Your task to perform on an android device: turn on location history Image 0: 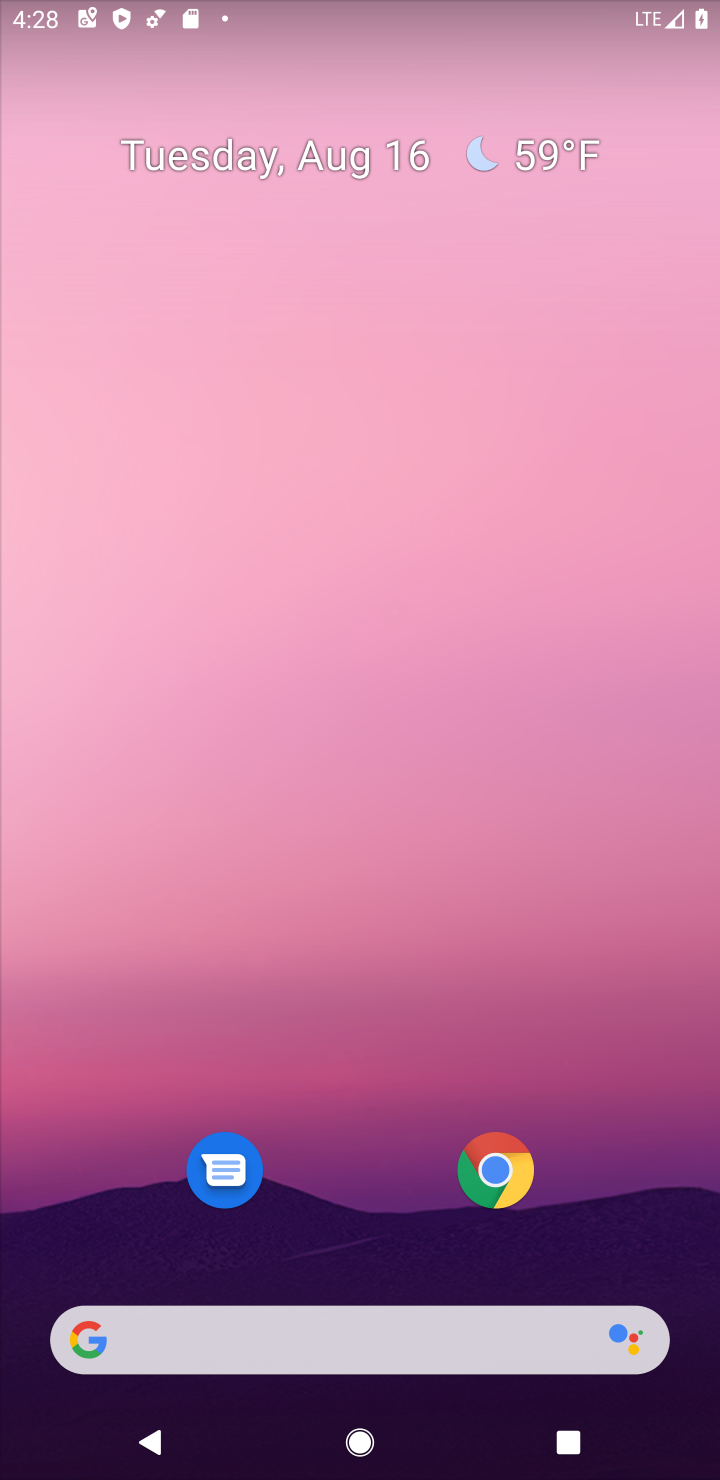
Step 0: drag from (408, 1288) to (372, 119)
Your task to perform on an android device: turn on location history Image 1: 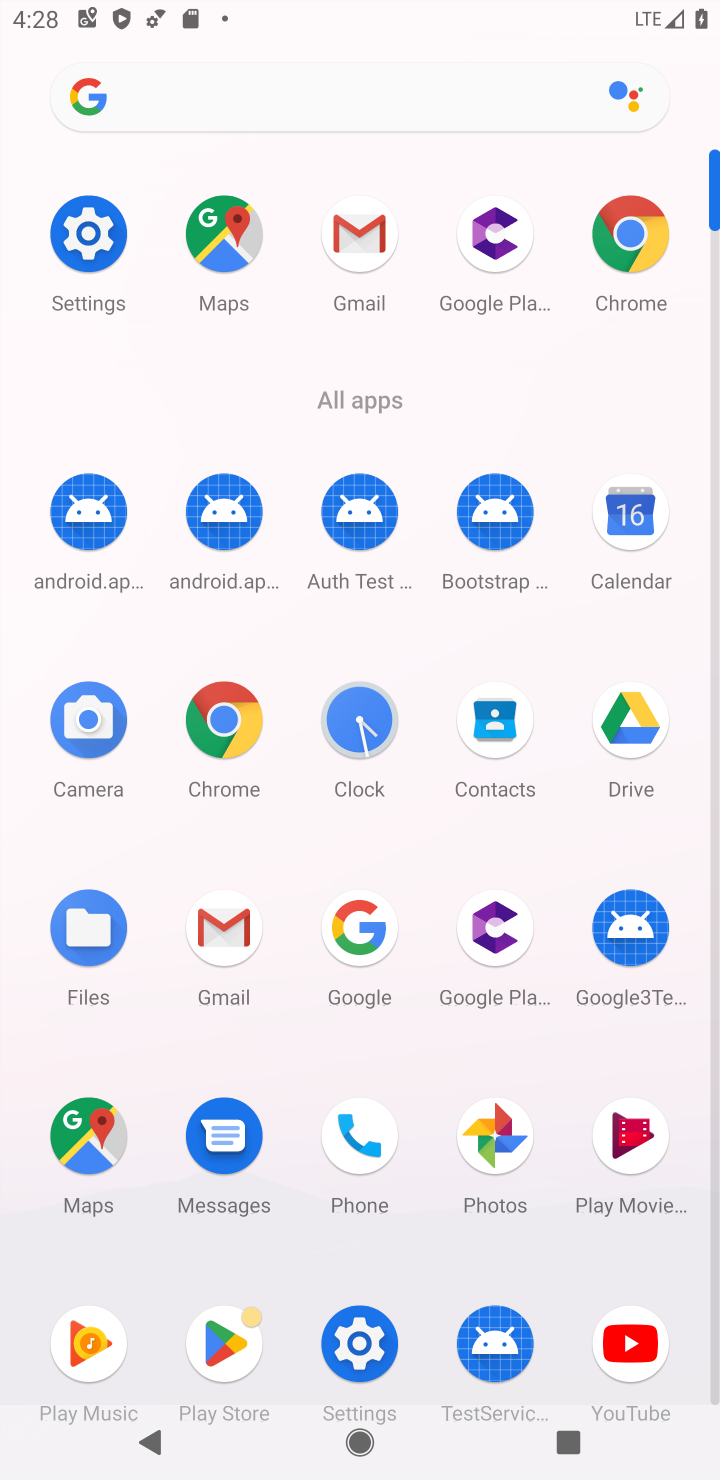
Step 1: click (75, 267)
Your task to perform on an android device: turn on location history Image 2: 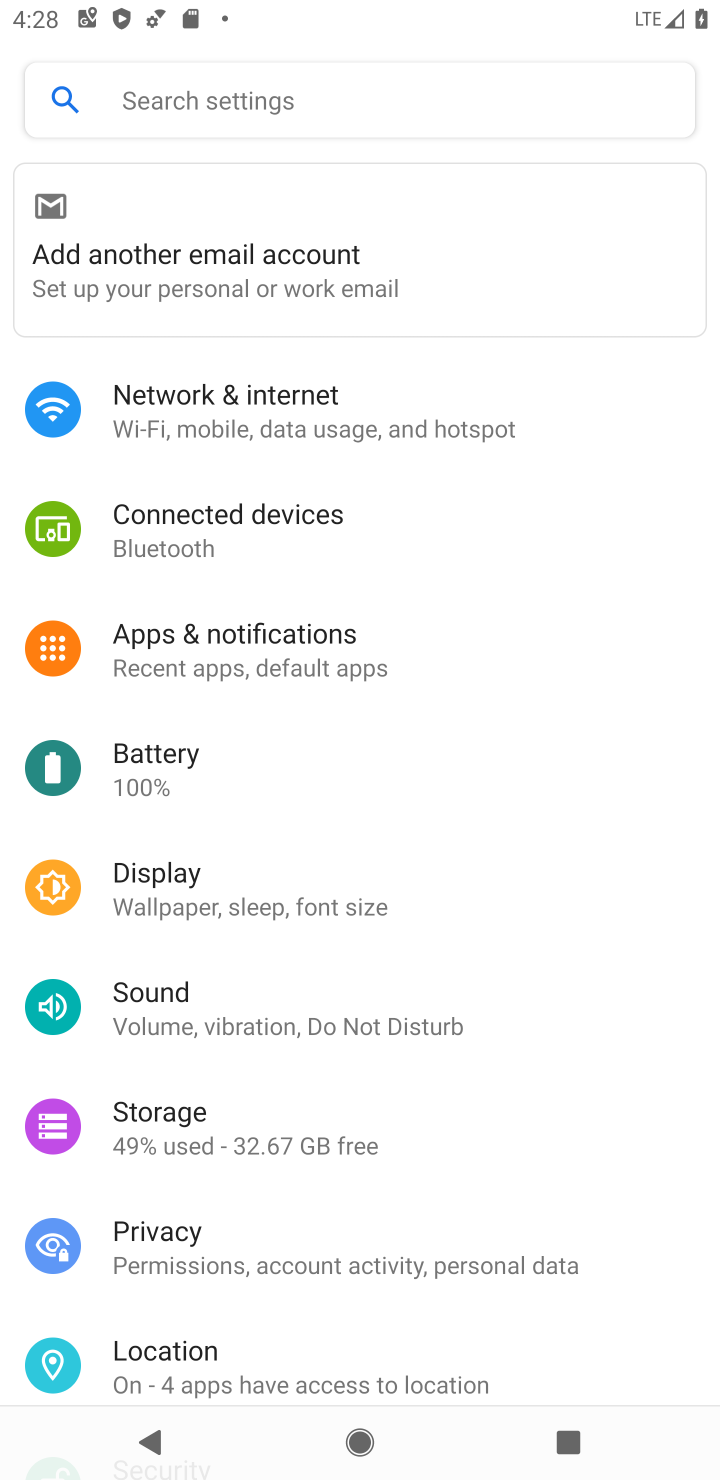
Step 2: click (175, 1359)
Your task to perform on an android device: turn on location history Image 3: 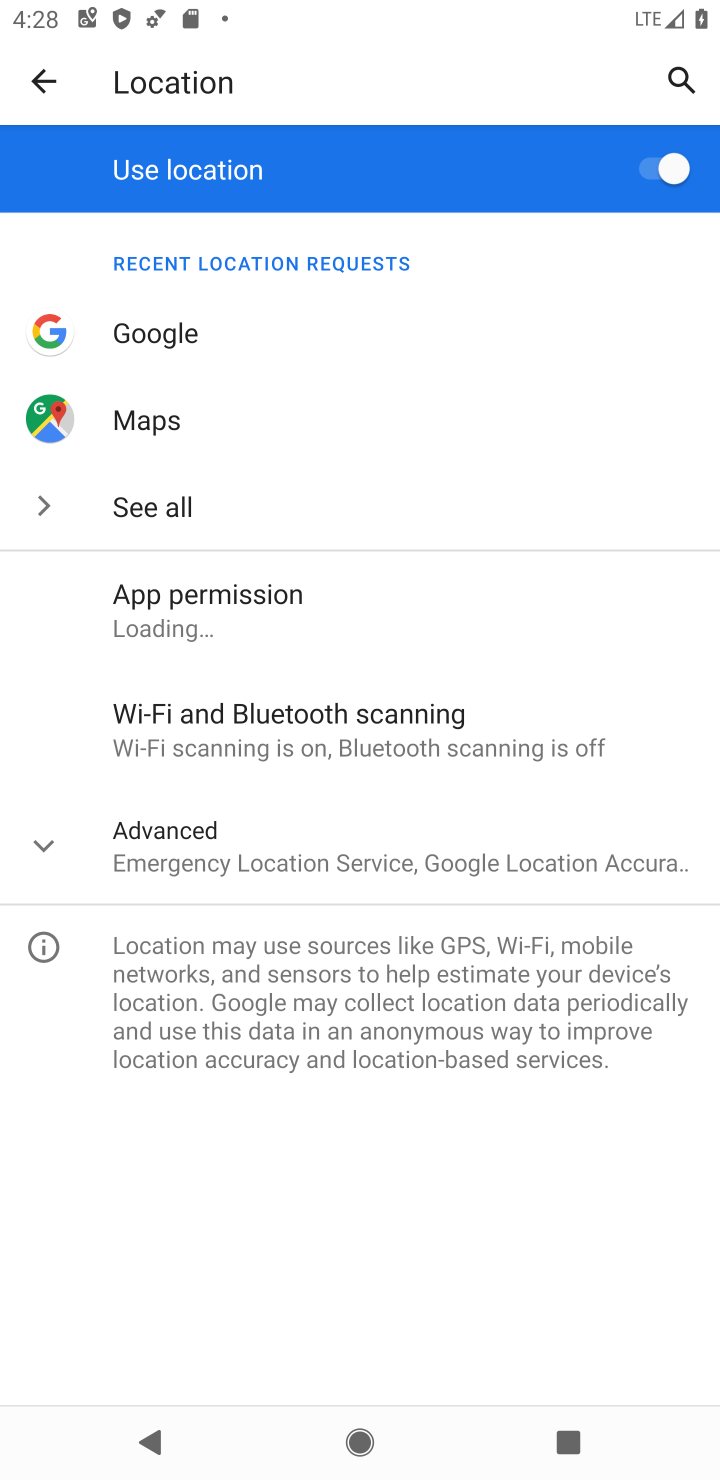
Step 3: click (176, 883)
Your task to perform on an android device: turn on location history Image 4: 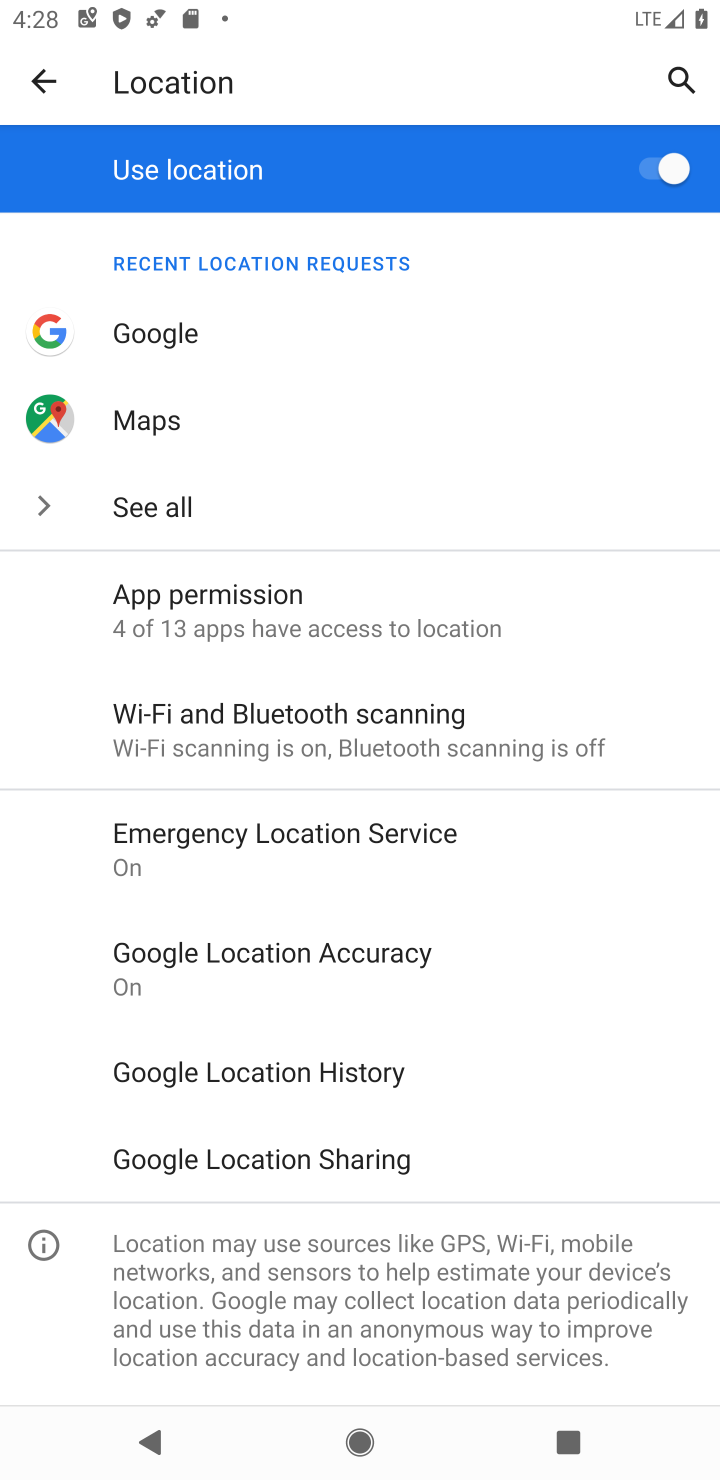
Step 4: click (267, 1099)
Your task to perform on an android device: turn on location history Image 5: 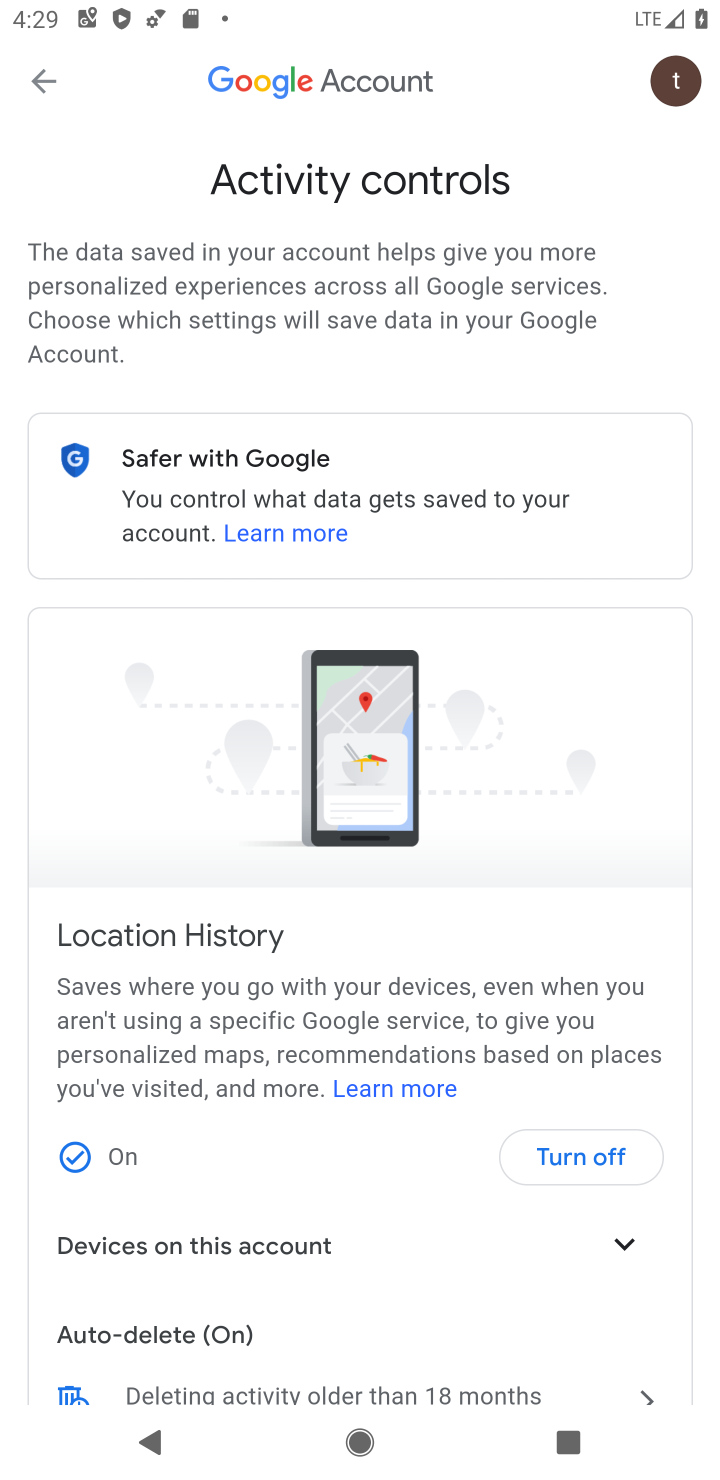
Step 5: task complete